Your task to perform on an android device: Open the map Image 0: 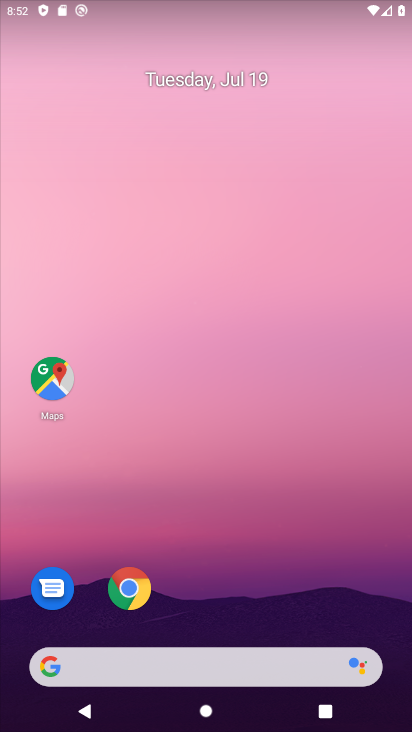
Step 0: drag from (219, 548) to (299, 63)
Your task to perform on an android device: Open the map Image 1: 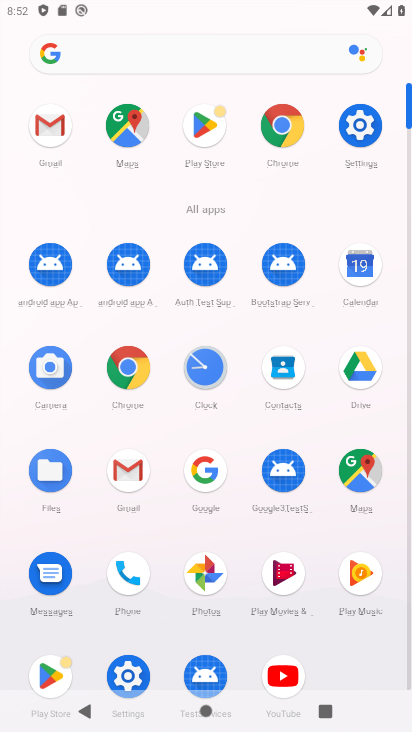
Step 1: click (354, 488)
Your task to perform on an android device: Open the map Image 2: 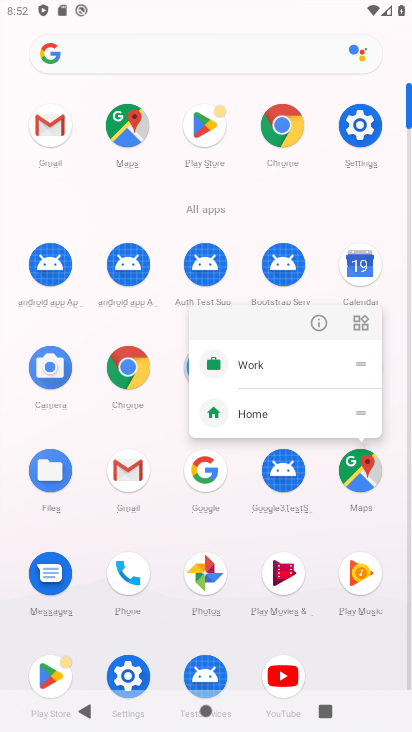
Step 2: click (354, 478)
Your task to perform on an android device: Open the map Image 3: 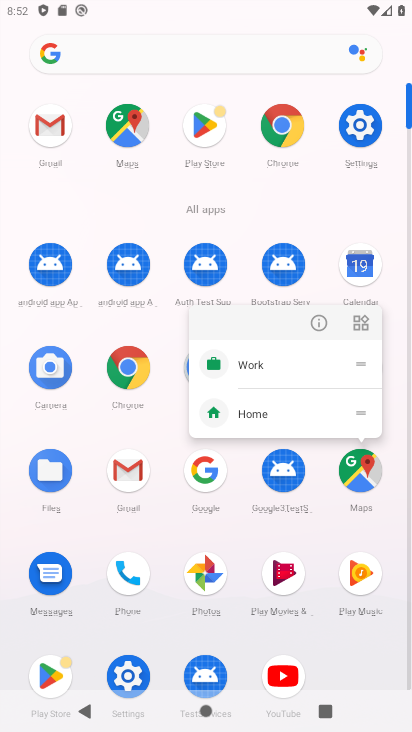
Step 3: click (355, 475)
Your task to perform on an android device: Open the map Image 4: 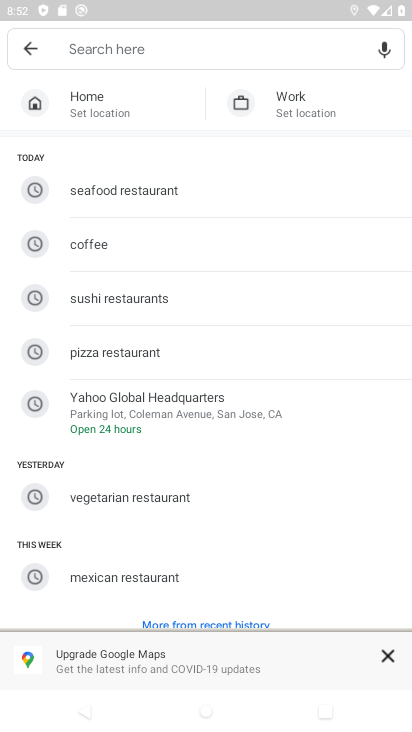
Step 4: click (394, 656)
Your task to perform on an android device: Open the map Image 5: 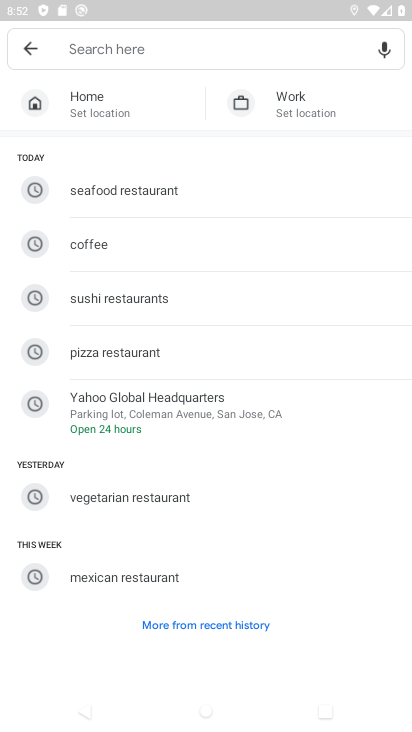
Step 5: task complete